Your task to perform on an android device: turn off airplane mode Image 0: 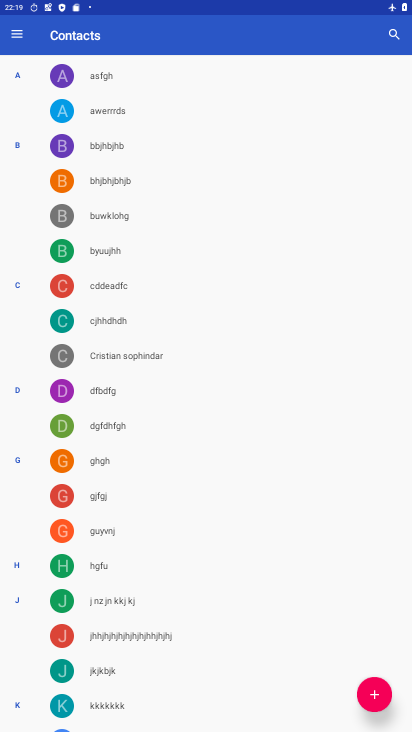
Step 0: press home button
Your task to perform on an android device: turn off airplane mode Image 1: 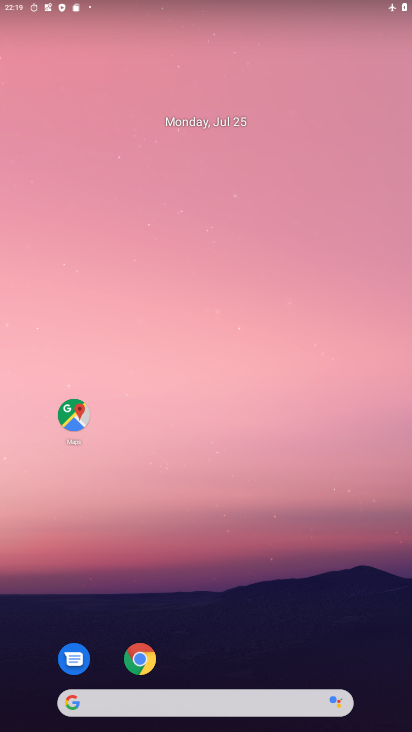
Step 1: drag from (211, 649) to (186, 326)
Your task to perform on an android device: turn off airplane mode Image 2: 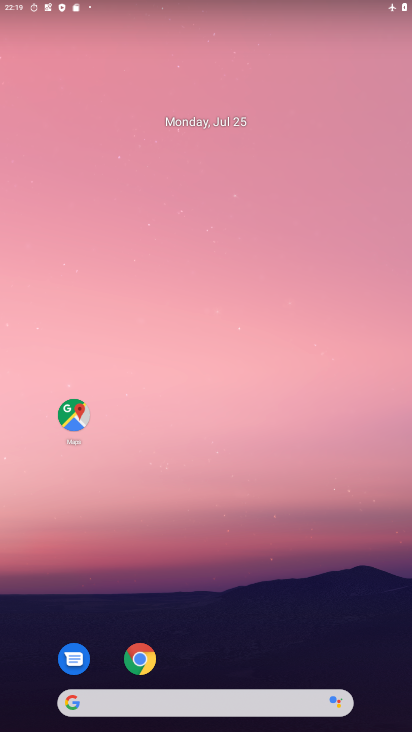
Step 2: drag from (220, 651) to (224, 187)
Your task to perform on an android device: turn off airplane mode Image 3: 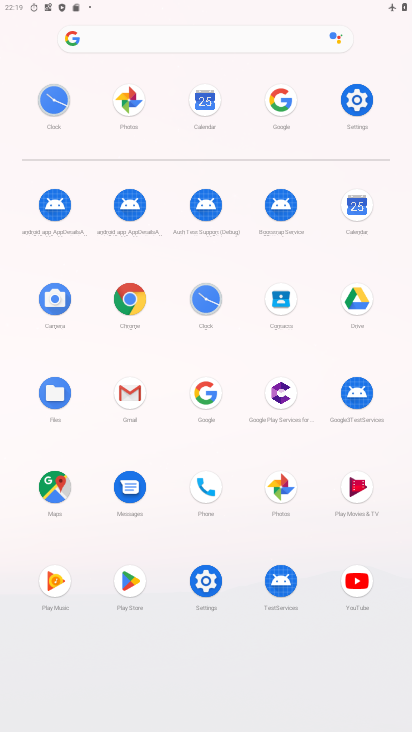
Step 3: click (365, 118)
Your task to perform on an android device: turn off airplane mode Image 4: 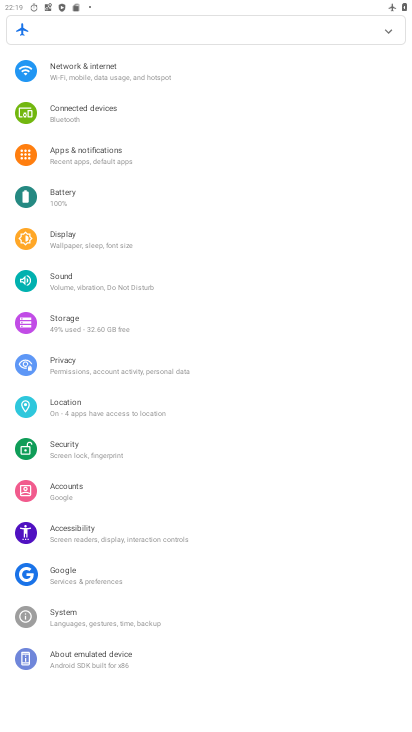
Step 4: click (82, 82)
Your task to perform on an android device: turn off airplane mode Image 5: 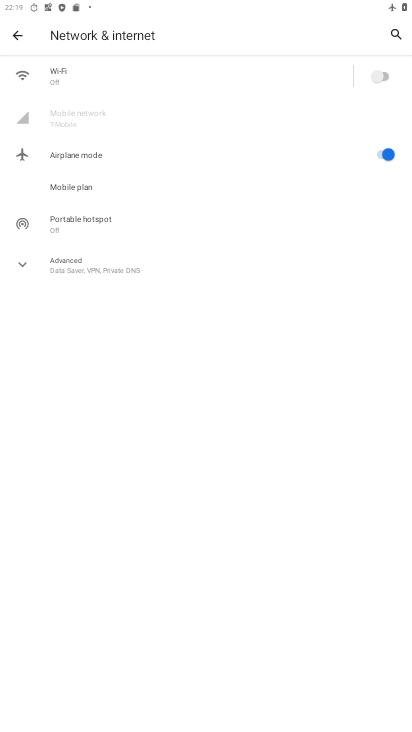
Step 5: click (373, 151)
Your task to perform on an android device: turn off airplane mode Image 6: 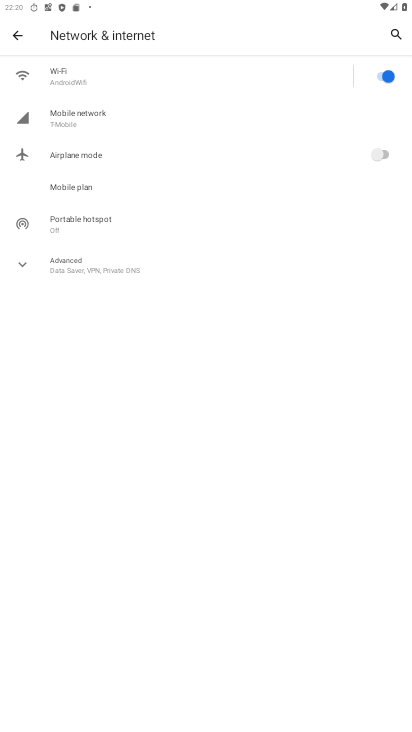
Step 6: task complete